Your task to perform on an android device: When is my next meeting? Image 0: 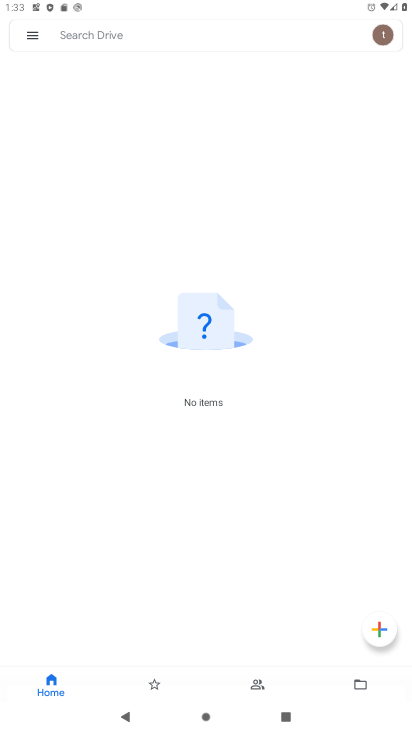
Step 0: press home button
Your task to perform on an android device: When is my next meeting? Image 1: 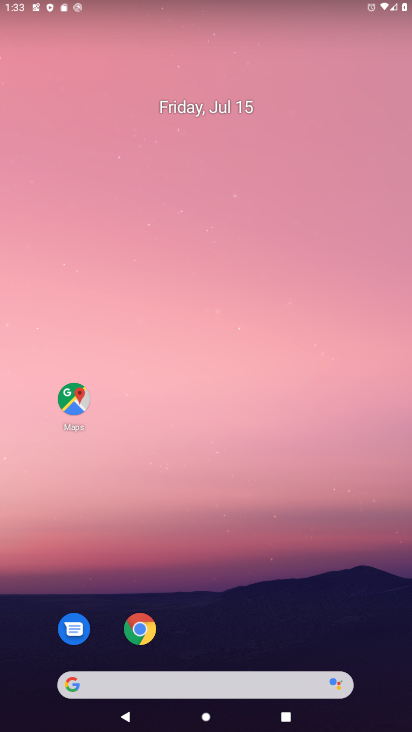
Step 1: drag from (321, 583) to (287, 121)
Your task to perform on an android device: When is my next meeting? Image 2: 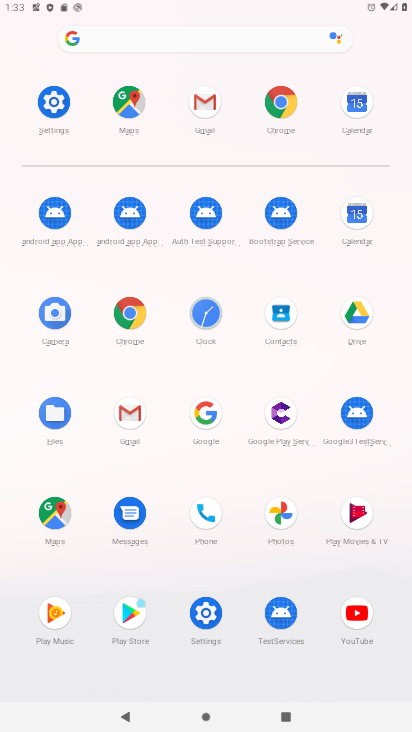
Step 2: click (361, 210)
Your task to perform on an android device: When is my next meeting? Image 3: 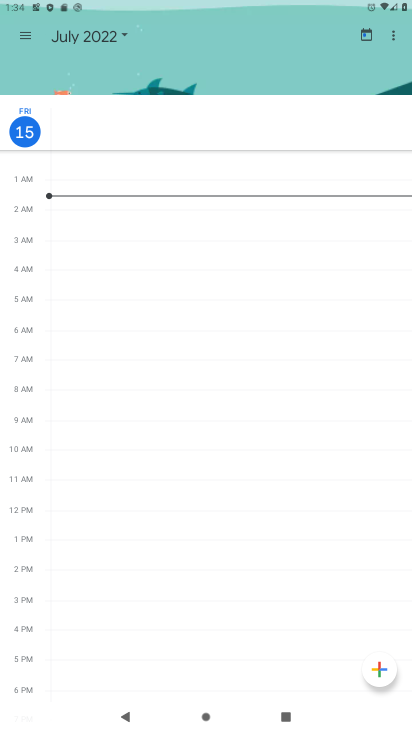
Step 3: click (101, 33)
Your task to perform on an android device: When is my next meeting? Image 4: 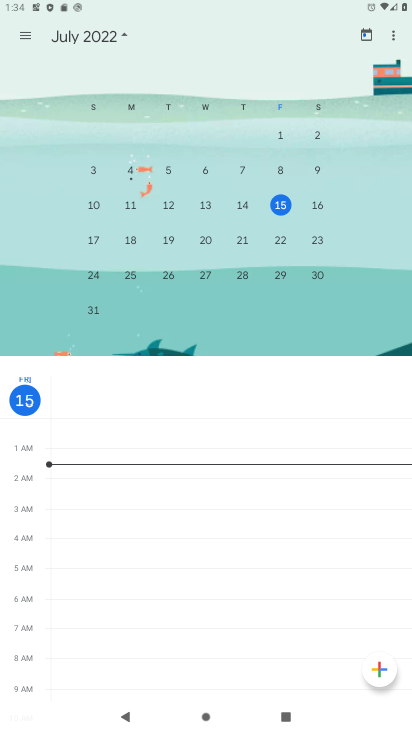
Step 4: click (28, 31)
Your task to perform on an android device: When is my next meeting? Image 5: 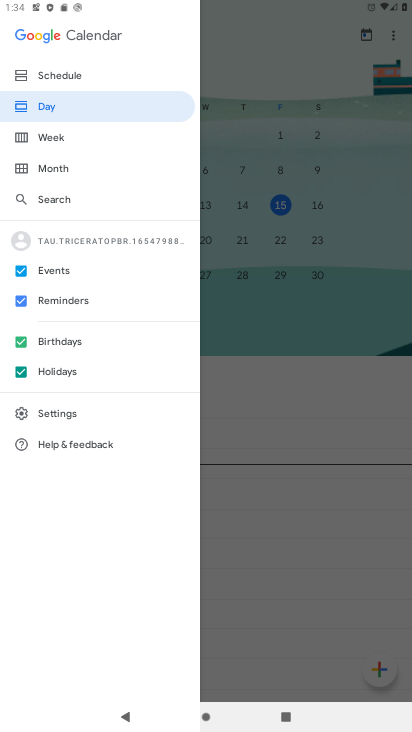
Step 5: click (58, 144)
Your task to perform on an android device: When is my next meeting? Image 6: 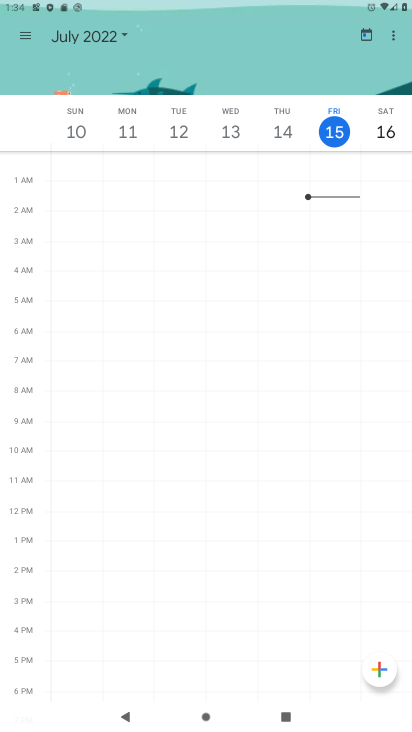
Step 6: task complete